Your task to perform on an android device: Go to Maps Image 0: 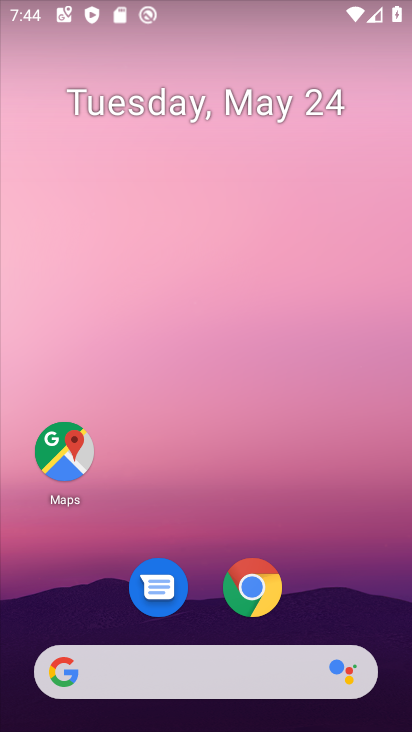
Step 0: drag from (216, 605) to (363, 47)
Your task to perform on an android device: Go to Maps Image 1: 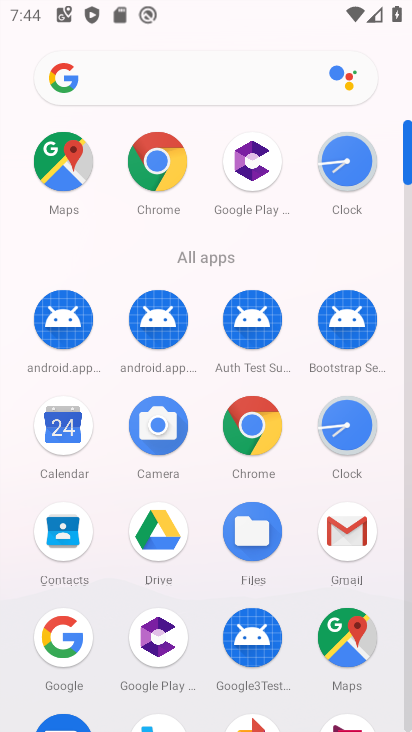
Step 1: click (341, 644)
Your task to perform on an android device: Go to Maps Image 2: 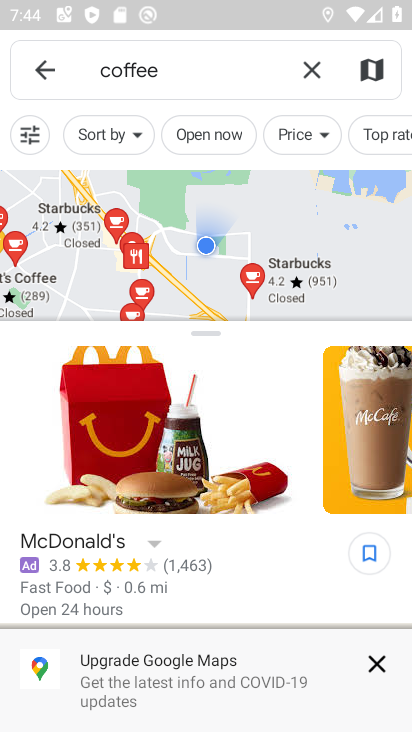
Step 2: click (49, 74)
Your task to perform on an android device: Go to Maps Image 3: 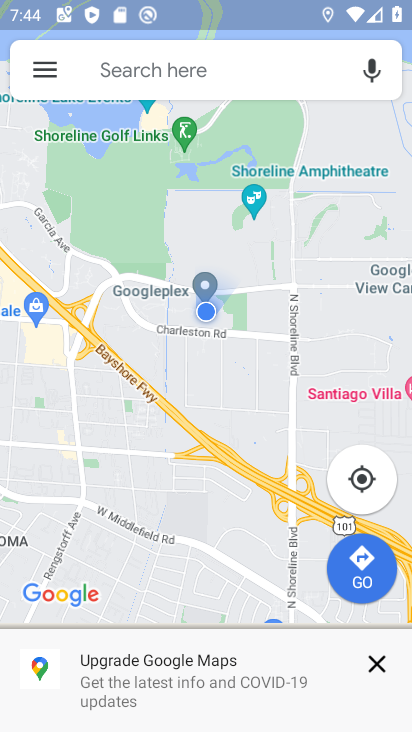
Step 3: task complete